Your task to perform on an android device: find which apps use the phone's location Image 0: 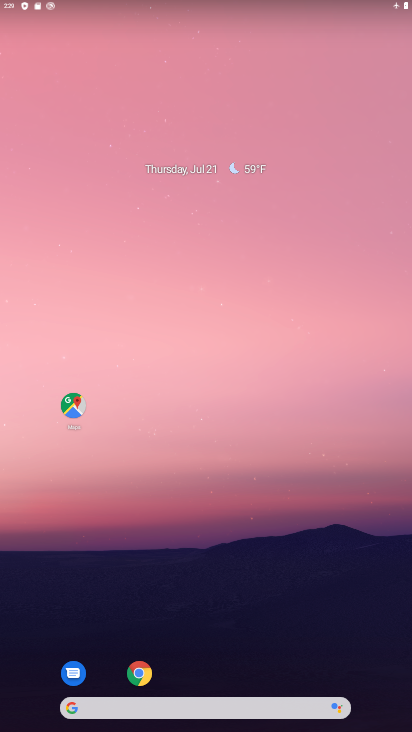
Step 0: drag from (391, 666) to (345, 90)
Your task to perform on an android device: find which apps use the phone's location Image 1: 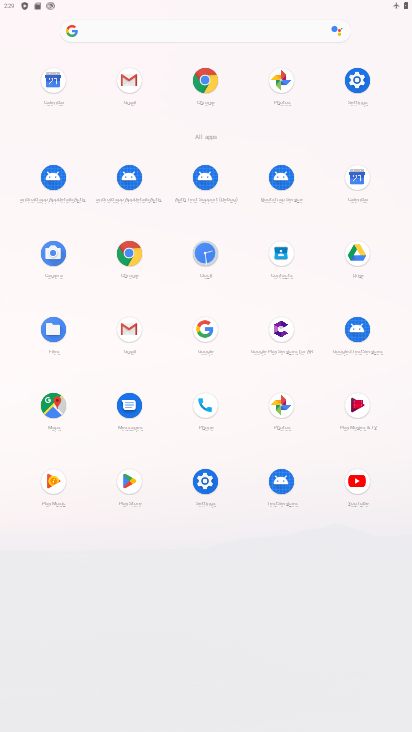
Step 1: click (206, 480)
Your task to perform on an android device: find which apps use the phone's location Image 2: 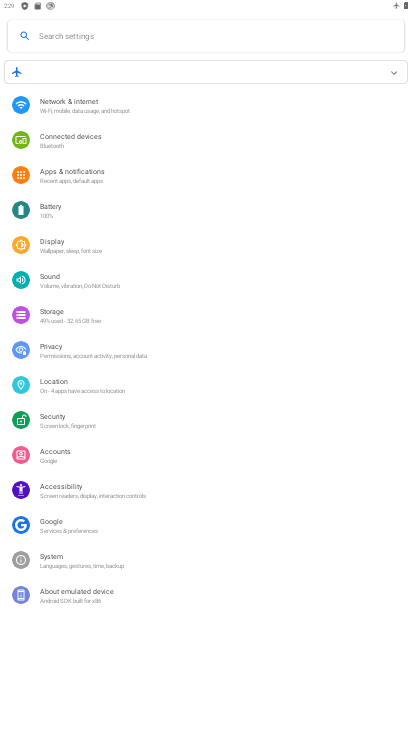
Step 2: click (53, 386)
Your task to perform on an android device: find which apps use the phone's location Image 3: 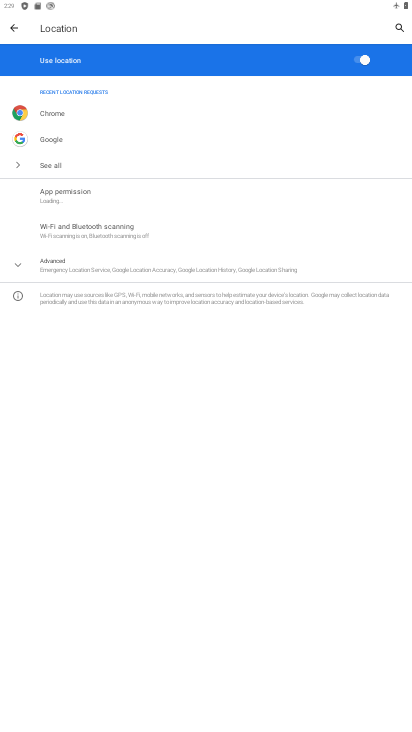
Step 3: click (63, 192)
Your task to perform on an android device: find which apps use the phone's location Image 4: 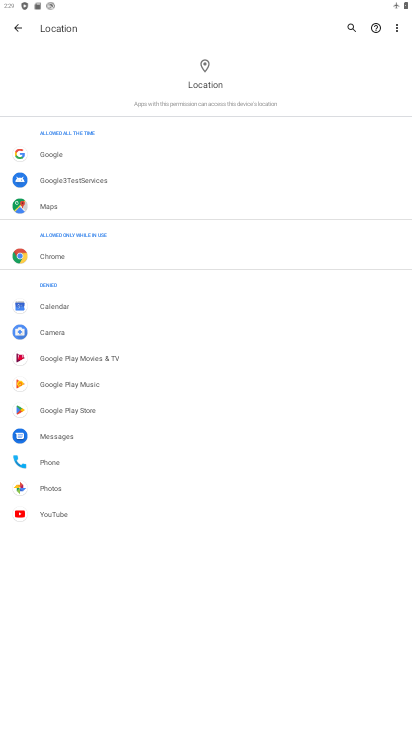
Step 4: click (47, 489)
Your task to perform on an android device: find which apps use the phone's location Image 5: 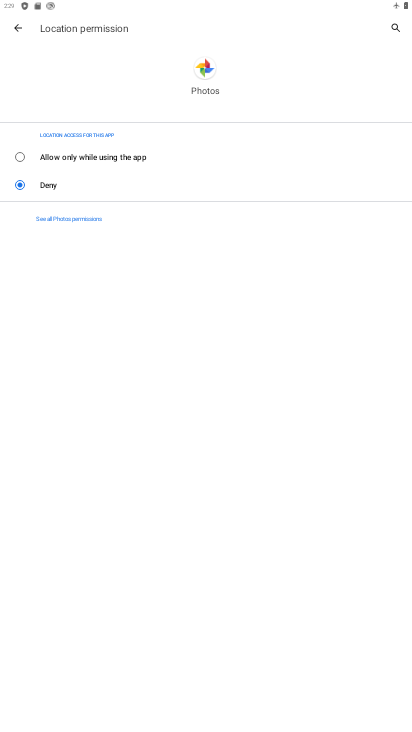
Step 5: task complete